Your task to perform on an android device: What's on my calendar today? Image 0: 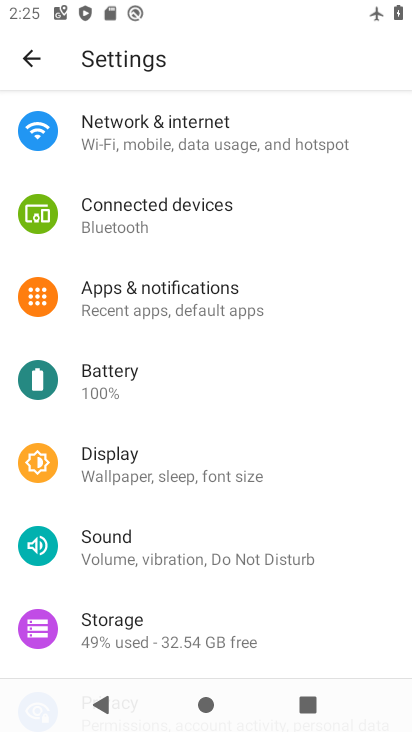
Step 0: press home button
Your task to perform on an android device: What's on my calendar today? Image 1: 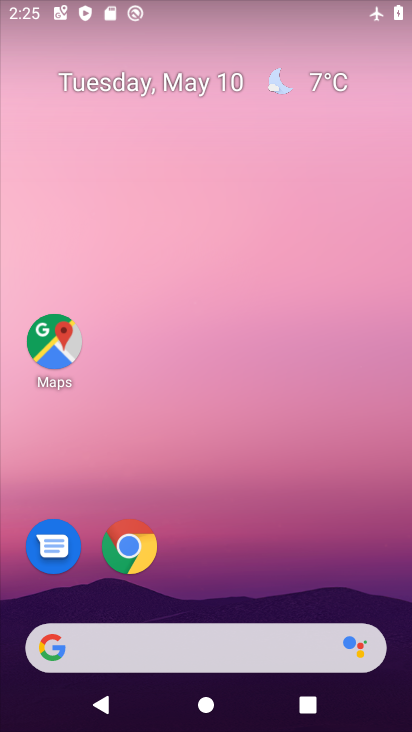
Step 1: drag from (320, 559) to (282, 97)
Your task to perform on an android device: What's on my calendar today? Image 2: 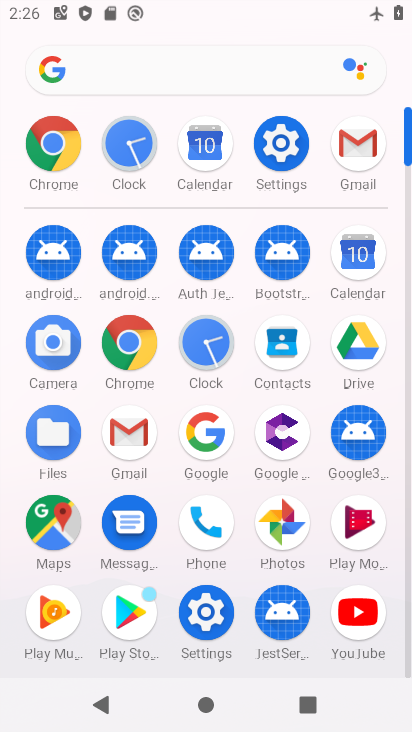
Step 2: click (353, 254)
Your task to perform on an android device: What's on my calendar today? Image 3: 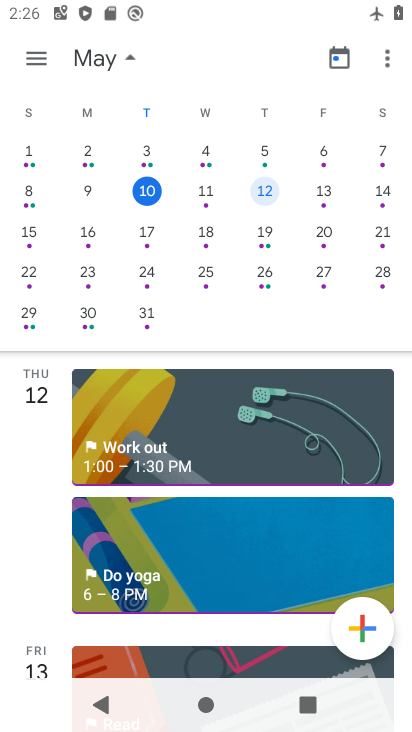
Step 3: drag from (397, 429) to (411, 582)
Your task to perform on an android device: What's on my calendar today? Image 4: 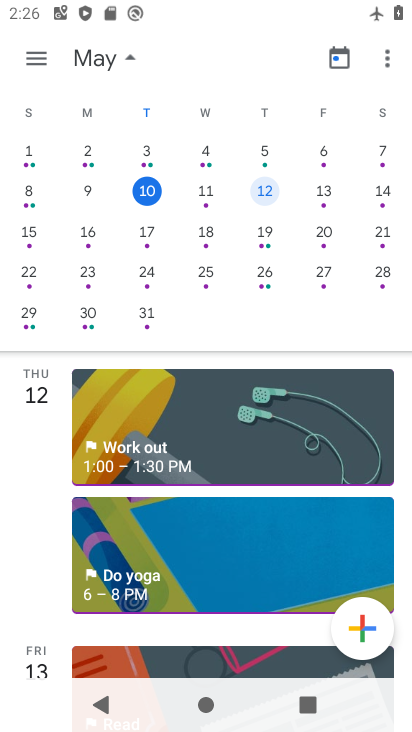
Step 4: click (411, 472)
Your task to perform on an android device: What's on my calendar today? Image 5: 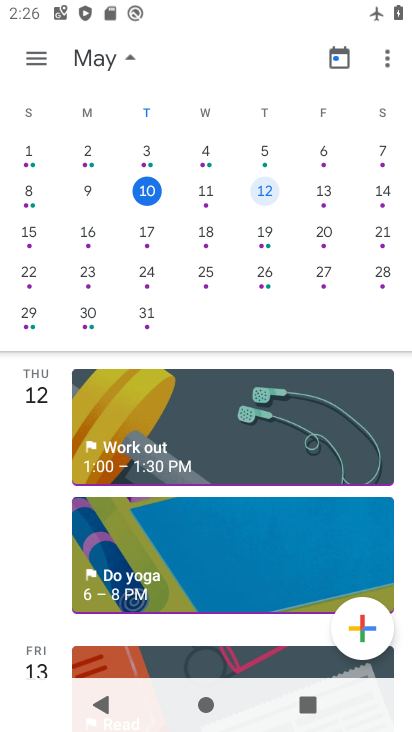
Step 5: task complete